Your task to perform on an android device: Go to settings Image 0: 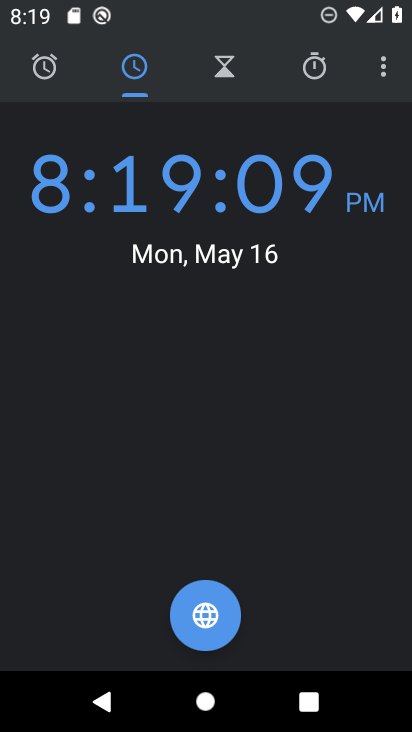
Step 0: press home button
Your task to perform on an android device: Go to settings Image 1: 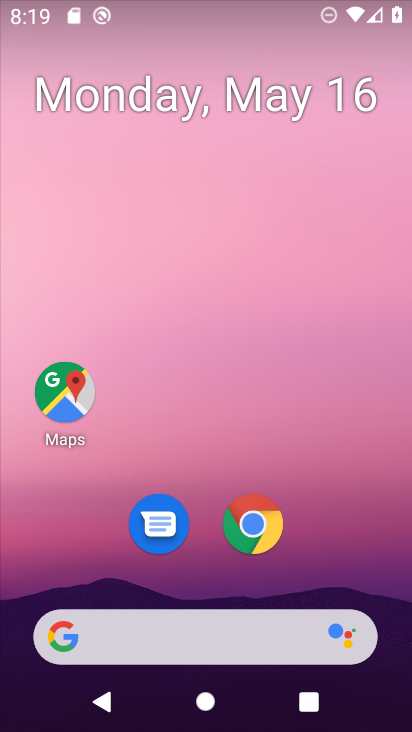
Step 1: drag from (305, 544) to (335, 65)
Your task to perform on an android device: Go to settings Image 2: 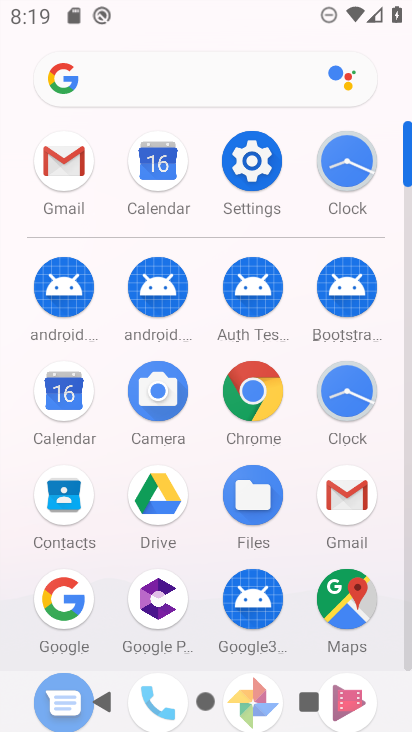
Step 2: click (256, 170)
Your task to perform on an android device: Go to settings Image 3: 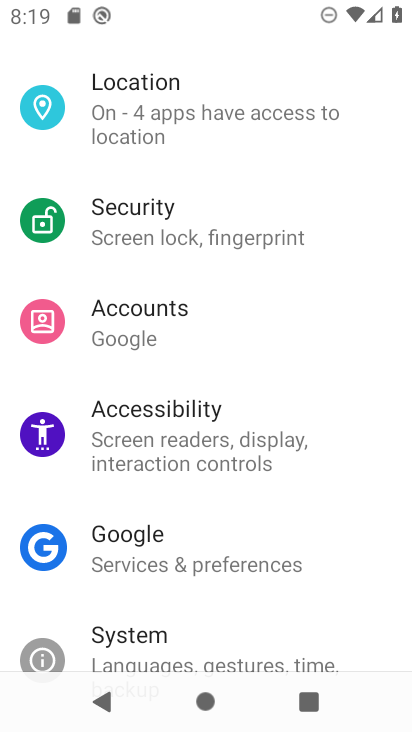
Step 3: task complete